Your task to perform on an android device: turn pop-ups on in chrome Image 0: 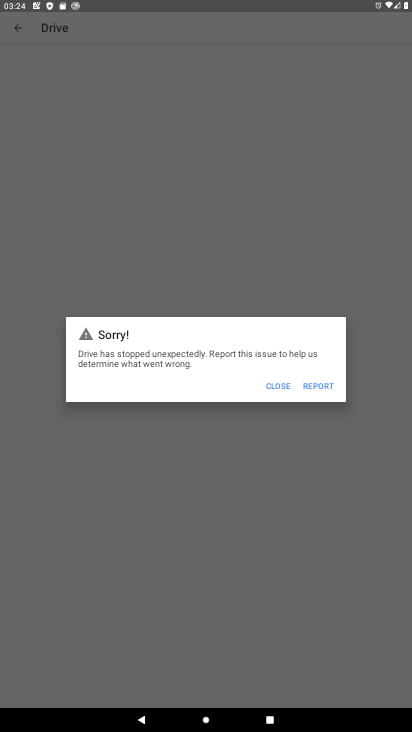
Step 0: press home button
Your task to perform on an android device: turn pop-ups on in chrome Image 1: 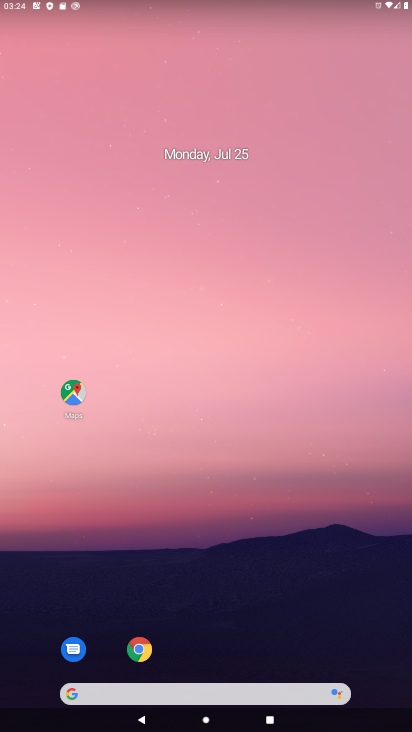
Step 1: click (139, 648)
Your task to perform on an android device: turn pop-ups on in chrome Image 2: 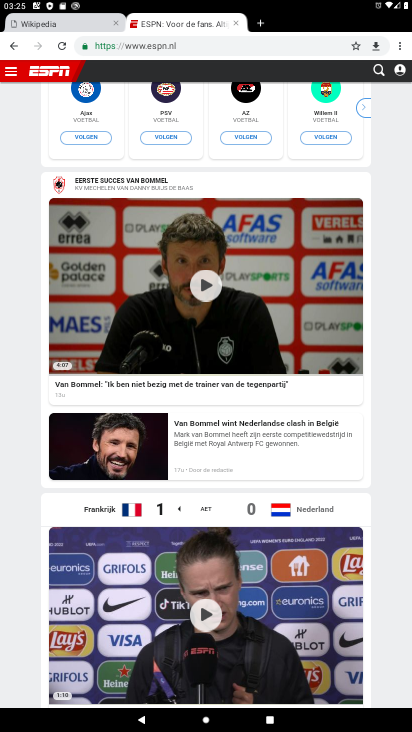
Step 2: click (398, 48)
Your task to perform on an android device: turn pop-ups on in chrome Image 3: 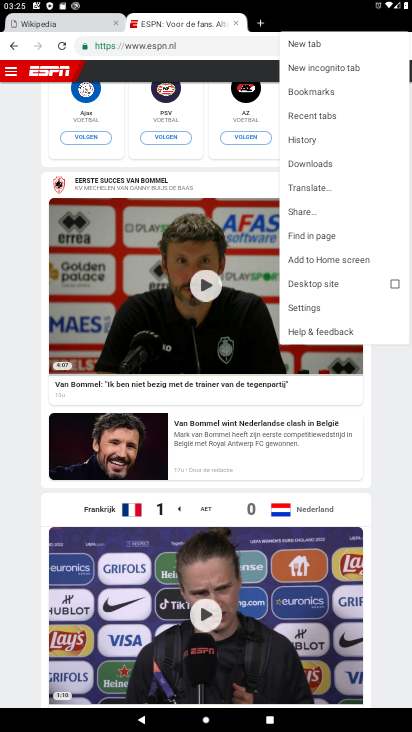
Step 3: click (300, 302)
Your task to perform on an android device: turn pop-ups on in chrome Image 4: 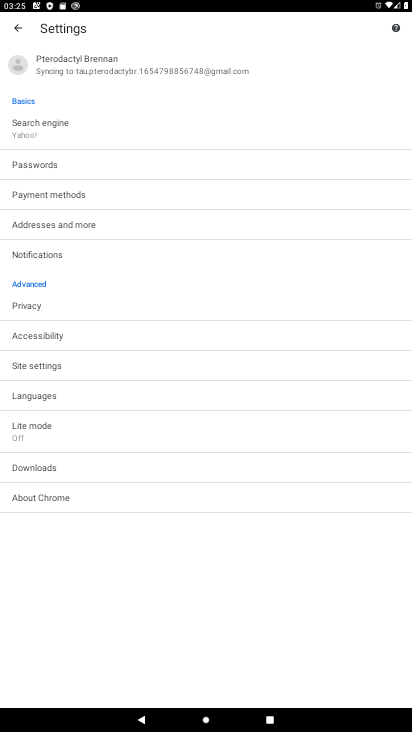
Step 4: click (30, 366)
Your task to perform on an android device: turn pop-ups on in chrome Image 5: 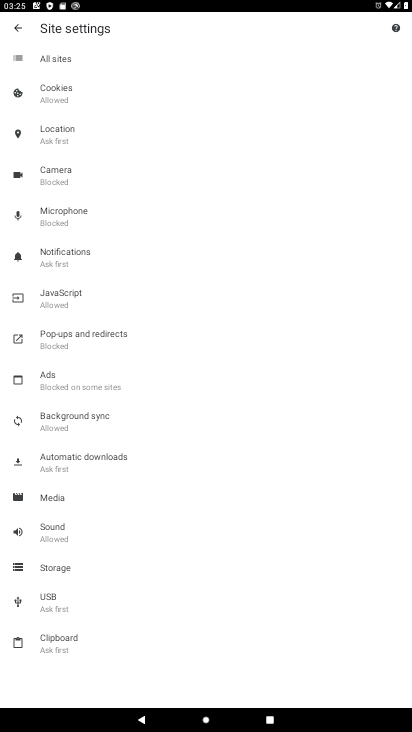
Step 5: click (70, 339)
Your task to perform on an android device: turn pop-ups on in chrome Image 6: 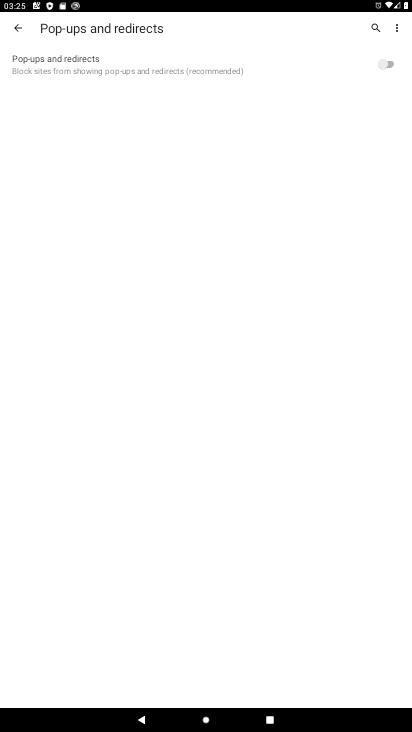
Step 6: click (390, 63)
Your task to perform on an android device: turn pop-ups on in chrome Image 7: 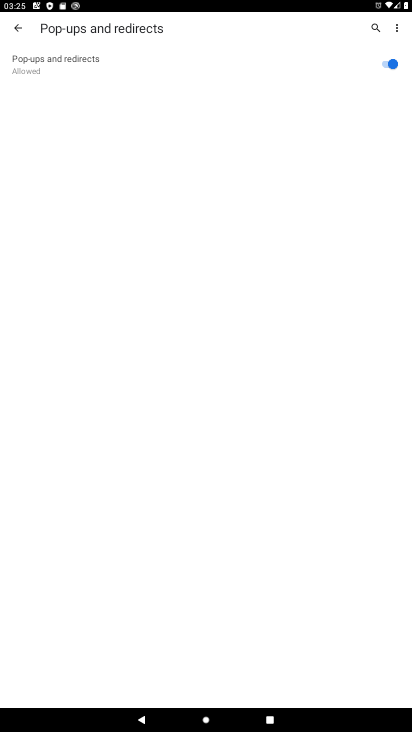
Step 7: task complete